Your task to perform on an android device: Open Chrome and go to settings Image 0: 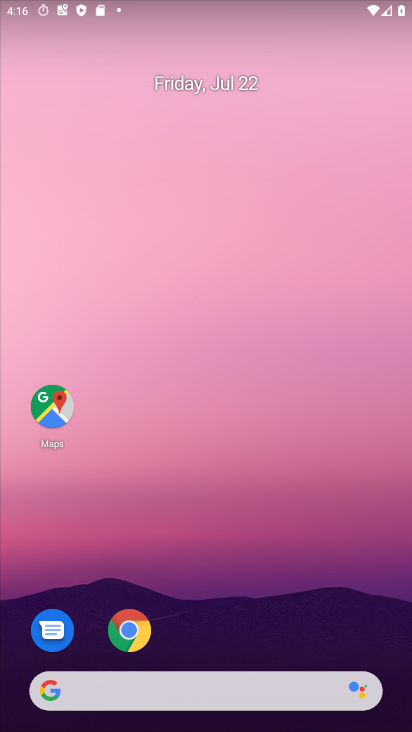
Step 0: drag from (216, 688) to (166, 22)
Your task to perform on an android device: Open Chrome and go to settings Image 1: 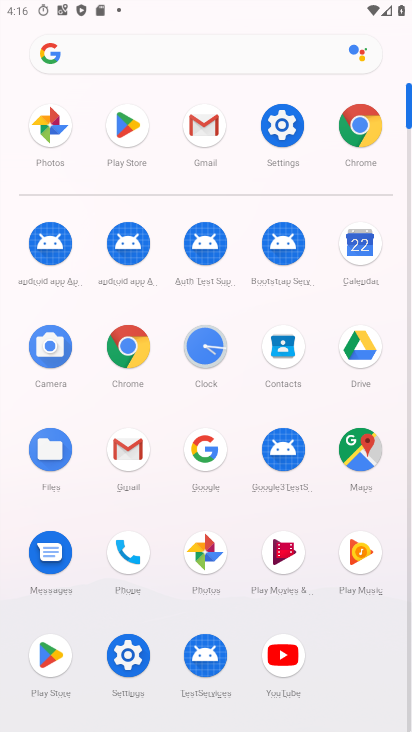
Step 1: click (116, 341)
Your task to perform on an android device: Open Chrome and go to settings Image 2: 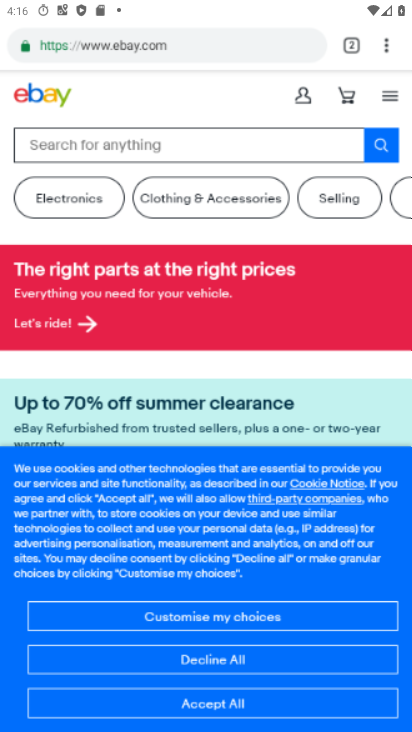
Step 2: task complete